Your task to perform on an android device: add a label to a message in the gmail app Image 0: 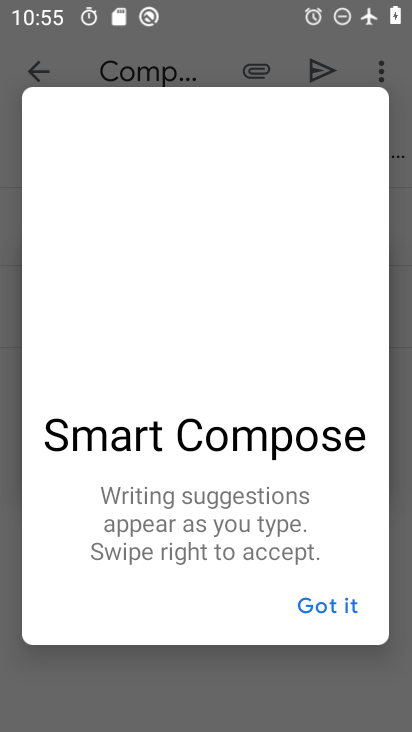
Step 0: press home button
Your task to perform on an android device: add a label to a message in the gmail app Image 1: 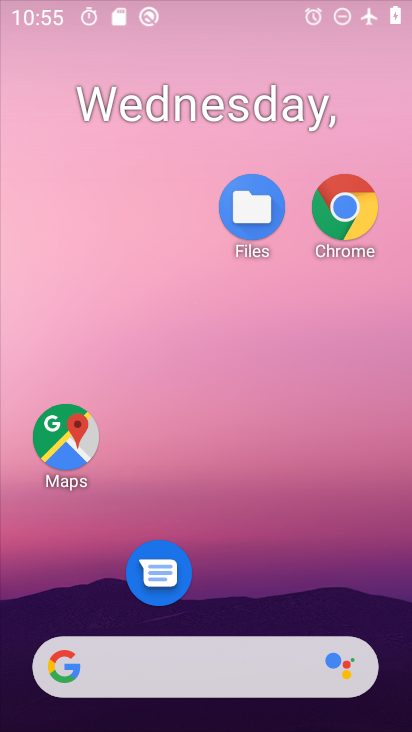
Step 1: drag from (262, 628) to (220, 125)
Your task to perform on an android device: add a label to a message in the gmail app Image 2: 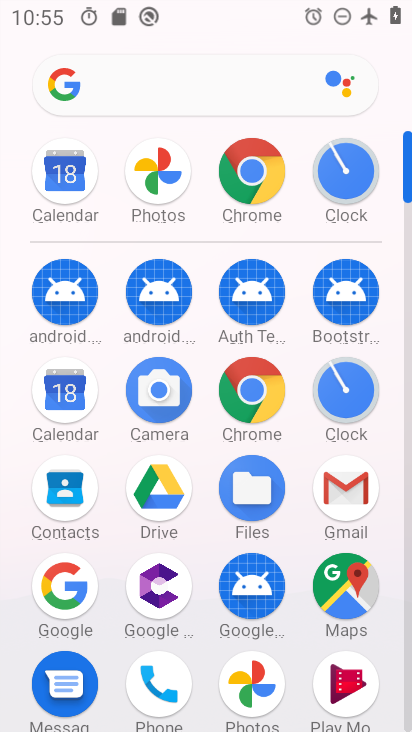
Step 2: click (369, 519)
Your task to perform on an android device: add a label to a message in the gmail app Image 3: 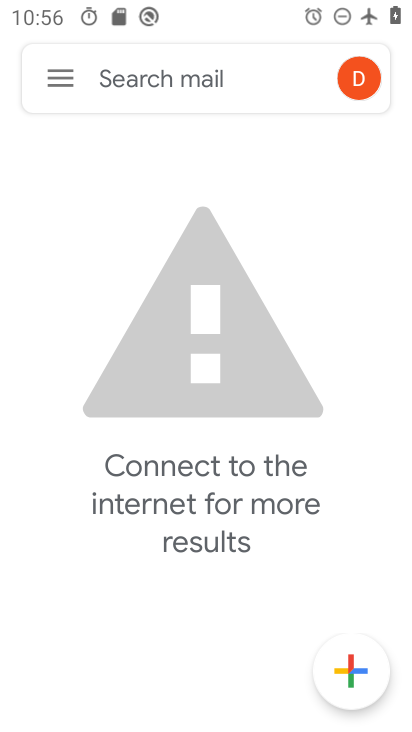
Step 3: click (64, 89)
Your task to perform on an android device: add a label to a message in the gmail app Image 4: 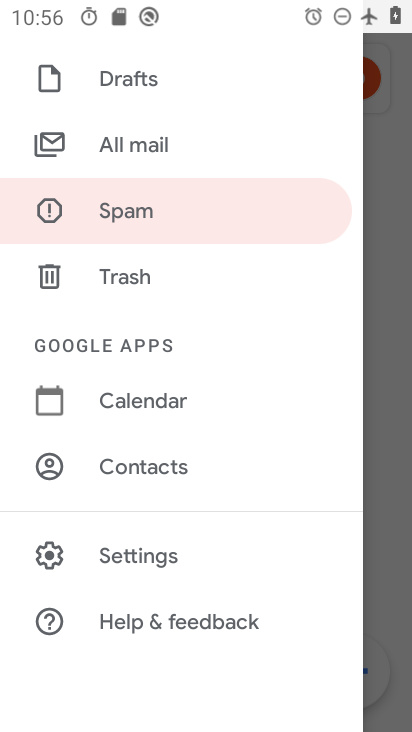
Step 4: click (179, 162)
Your task to perform on an android device: add a label to a message in the gmail app Image 5: 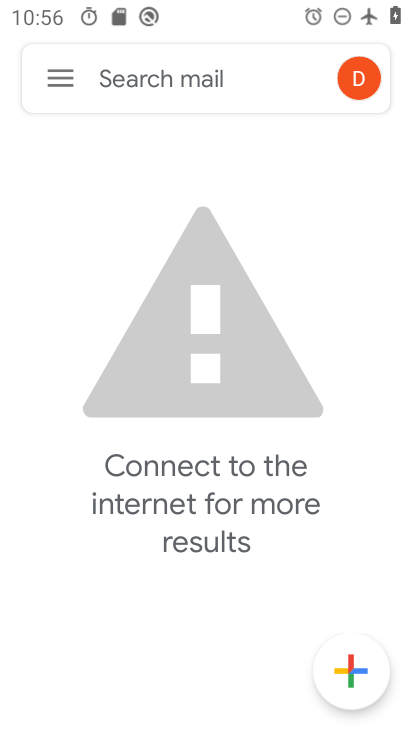
Step 5: task complete